Your task to perform on an android device: search for starred emails in the gmail app Image 0: 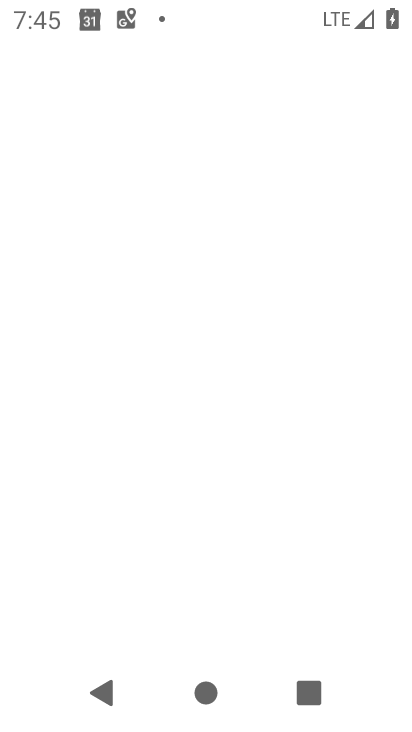
Step 0: drag from (292, 539) to (286, 261)
Your task to perform on an android device: search for starred emails in the gmail app Image 1: 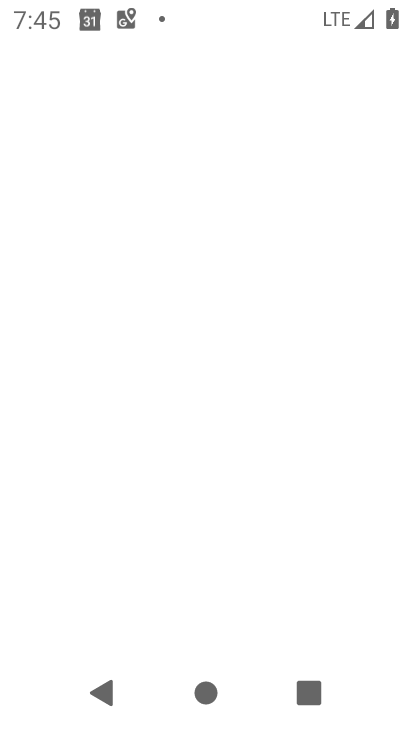
Step 1: drag from (216, 559) to (317, 558)
Your task to perform on an android device: search for starred emails in the gmail app Image 2: 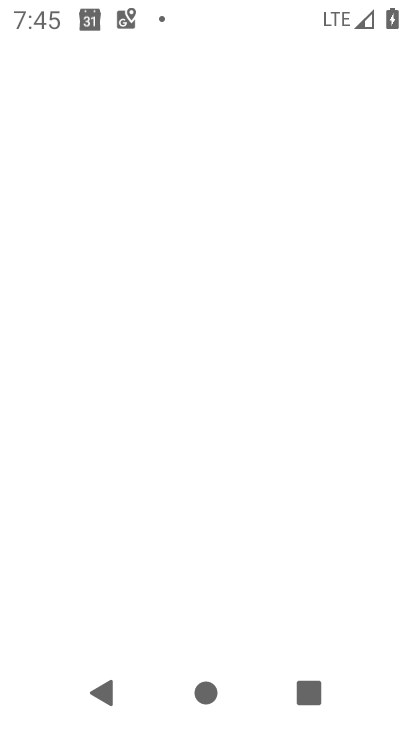
Step 2: press home button
Your task to perform on an android device: search for starred emails in the gmail app Image 3: 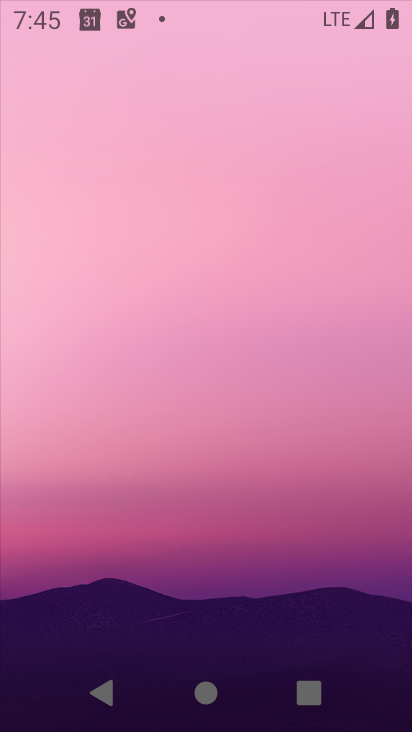
Step 3: press home button
Your task to perform on an android device: search for starred emails in the gmail app Image 4: 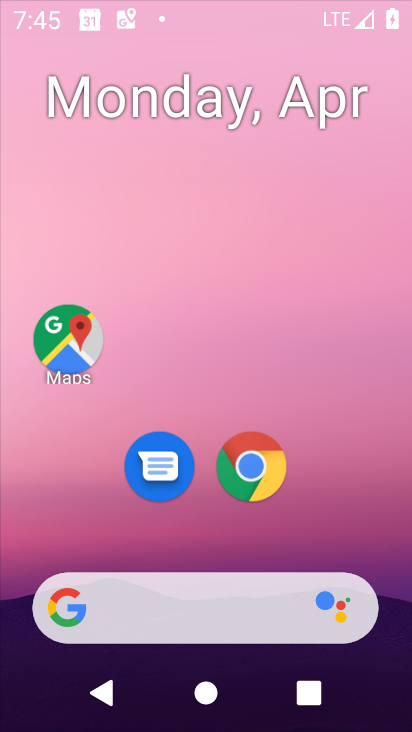
Step 4: press home button
Your task to perform on an android device: search for starred emails in the gmail app Image 5: 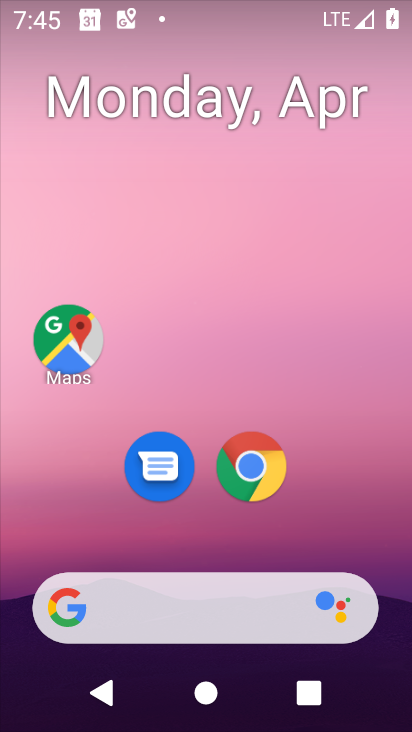
Step 5: drag from (218, 434) to (249, 2)
Your task to perform on an android device: search for starred emails in the gmail app Image 6: 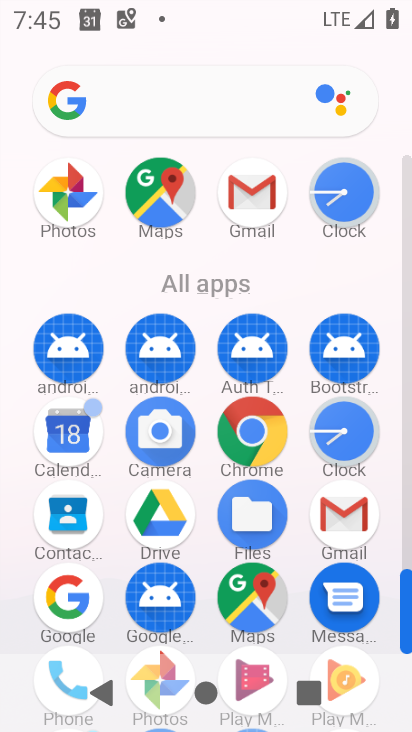
Step 6: click (348, 531)
Your task to perform on an android device: search for starred emails in the gmail app Image 7: 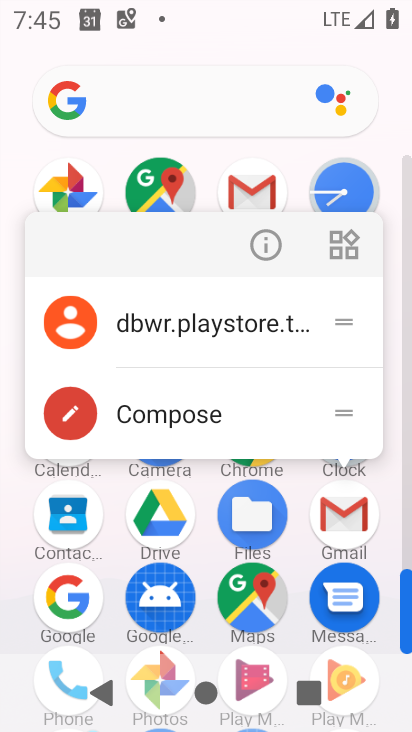
Step 7: click (266, 251)
Your task to perform on an android device: search for starred emails in the gmail app Image 8: 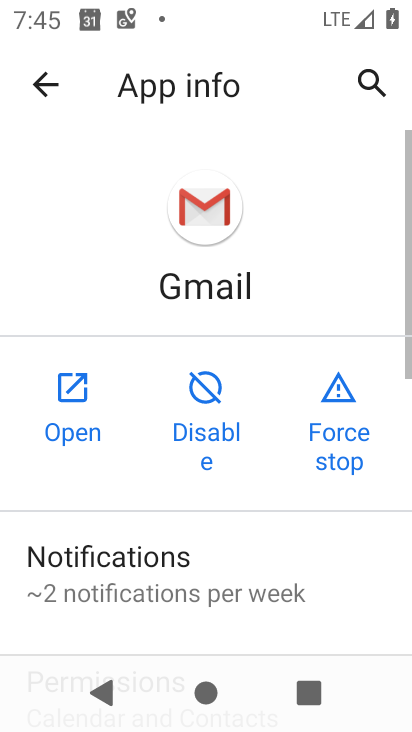
Step 8: click (44, 413)
Your task to perform on an android device: search for starred emails in the gmail app Image 9: 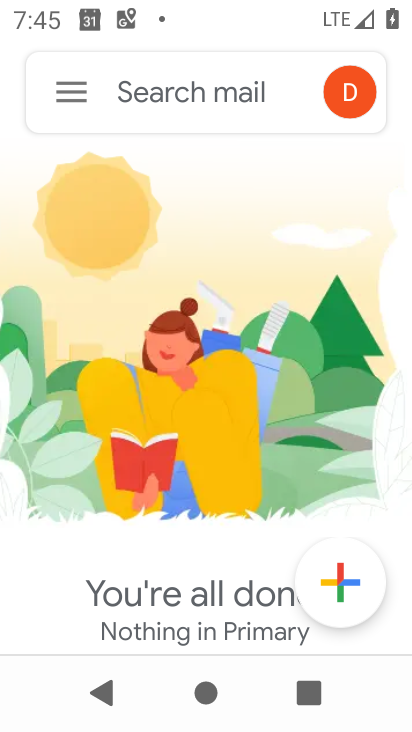
Step 9: click (75, 97)
Your task to perform on an android device: search for starred emails in the gmail app Image 10: 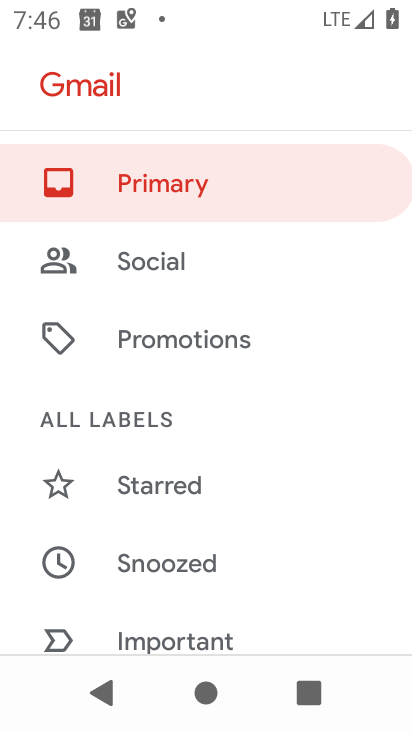
Step 10: click (184, 491)
Your task to perform on an android device: search for starred emails in the gmail app Image 11: 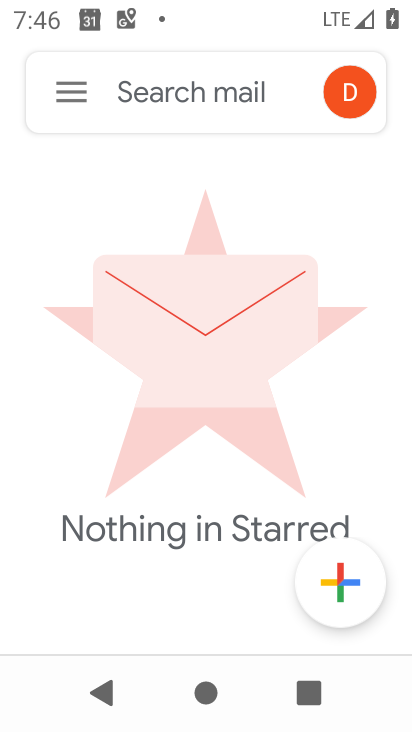
Step 11: task complete